Your task to perform on an android device: move a message to another label in the gmail app Image 0: 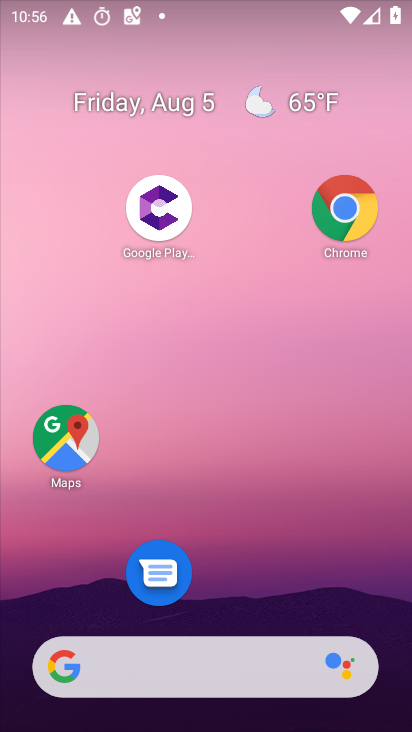
Step 0: press home button
Your task to perform on an android device: move a message to another label in the gmail app Image 1: 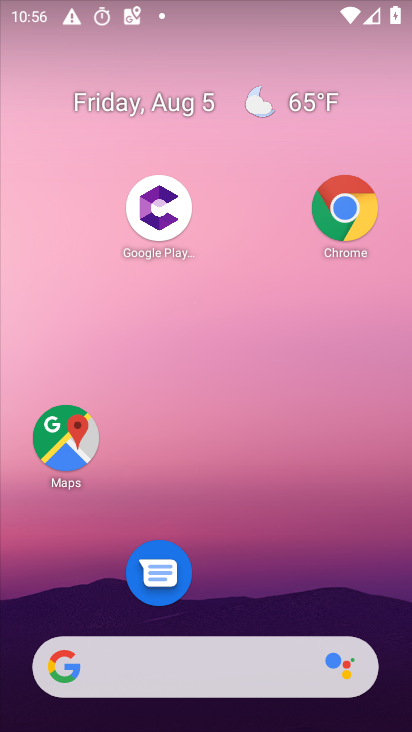
Step 1: drag from (232, 616) to (249, 77)
Your task to perform on an android device: move a message to another label in the gmail app Image 2: 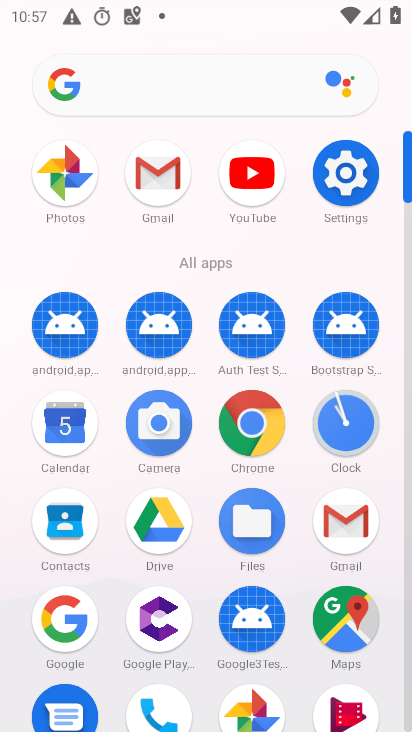
Step 2: click (155, 160)
Your task to perform on an android device: move a message to another label in the gmail app Image 3: 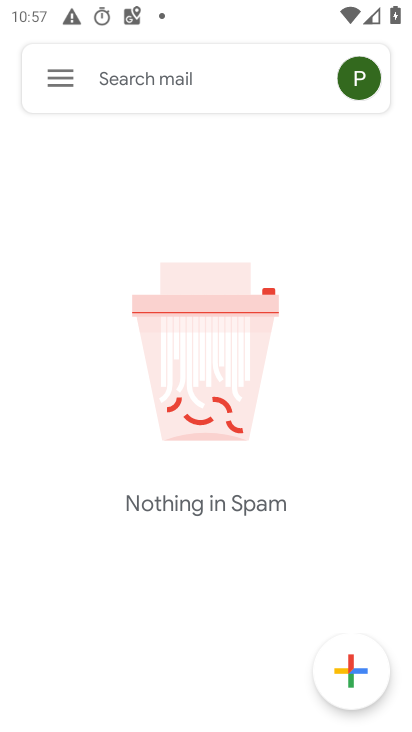
Step 3: click (59, 77)
Your task to perform on an android device: move a message to another label in the gmail app Image 4: 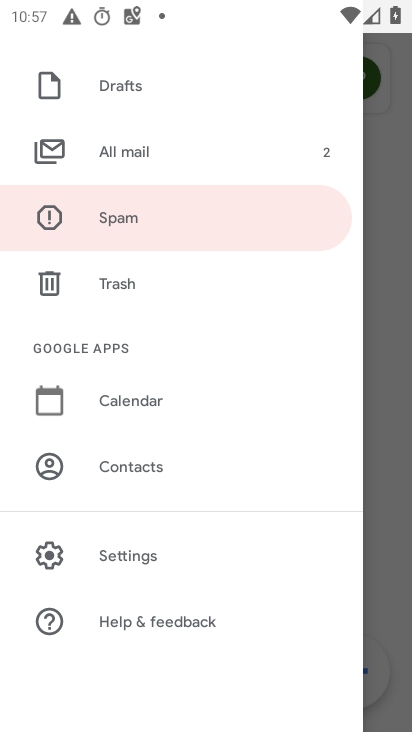
Step 4: click (118, 147)
Your task to perform on an android device: move a message to another label in the gmail app Image 5: 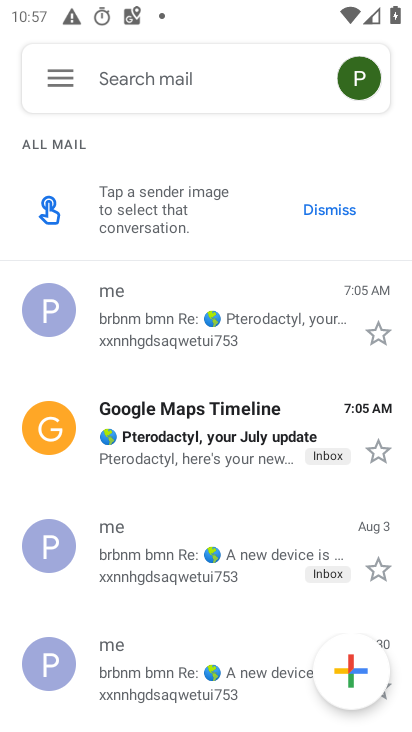
Step 5: click (41, 424)
Your task to perform on an android device: move a message to another label in the gmail app Image 6: 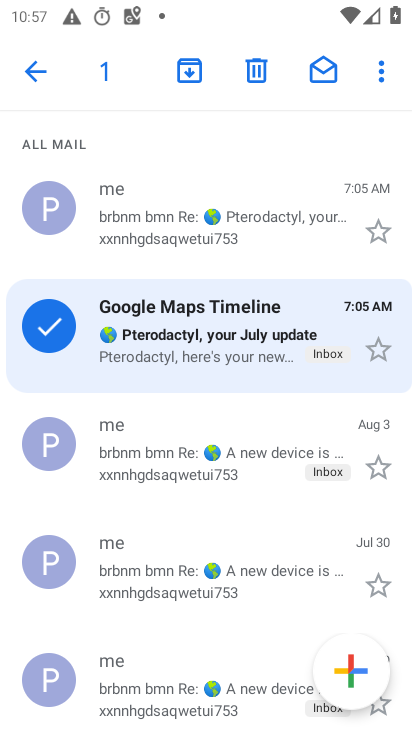
Step 6: click (375, 63)
Your task to perform on an android device: move a message to another label in the gmail app Image 7: 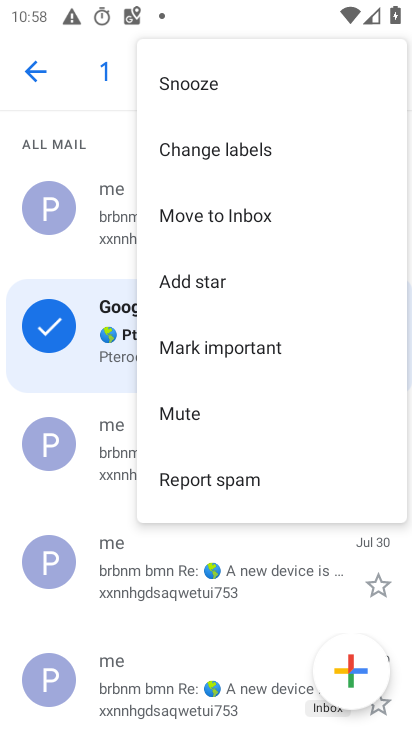
Step 7: click (285, 146)
Your task to perform on an android device: move a message to another label in the gmail app Image 8: 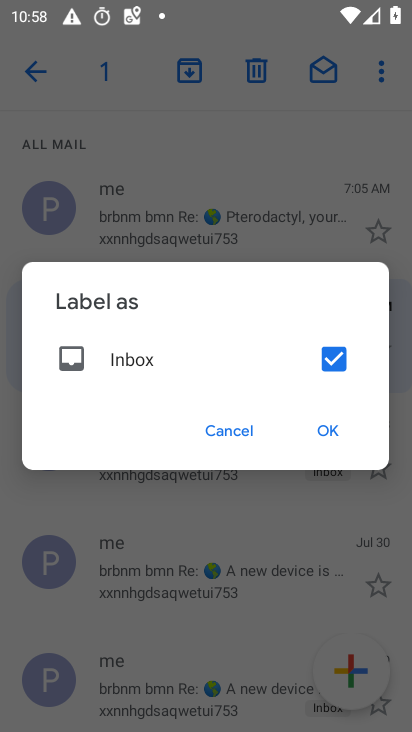
Step 8: click (332, 350)
Your task to perform on an android device: move a message to another label in the gmail app Image 9: 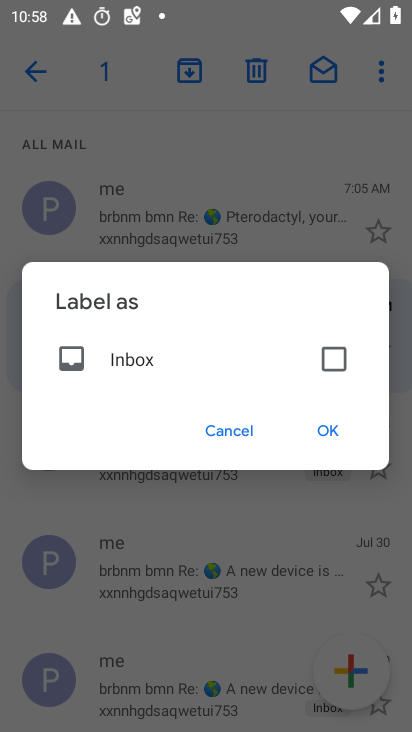
Step 9: click (327, 429)
Your task to perform on an android device: move a message to another label in the gmail app Image 10: 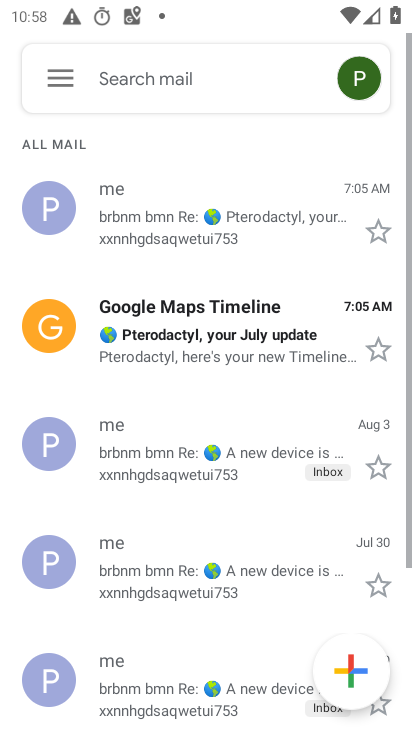
Step 10: task complete